Your task to perform on an android device: open a bookmark in the chrome app Image 0: 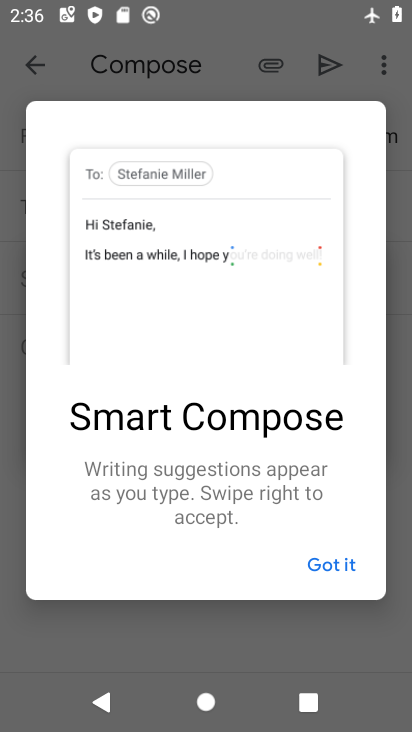
Step 0: press home button
Your task to perform on an android device: open a bookmark in the chrome app Image 1: 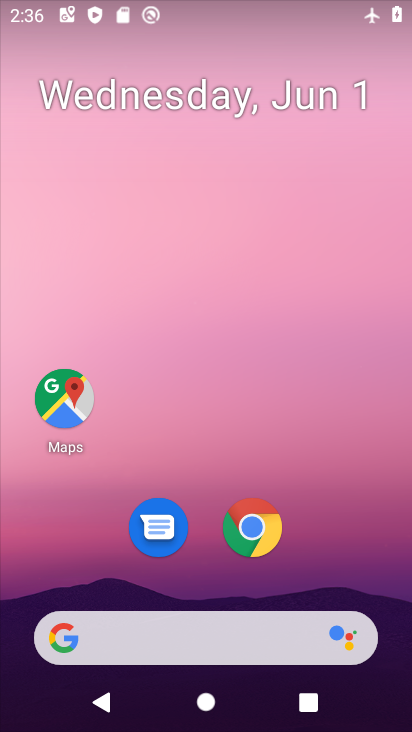
Step 1: click (256, 527)
Your task to perform on an android device: open a bookmark in the chrome app Image 2: 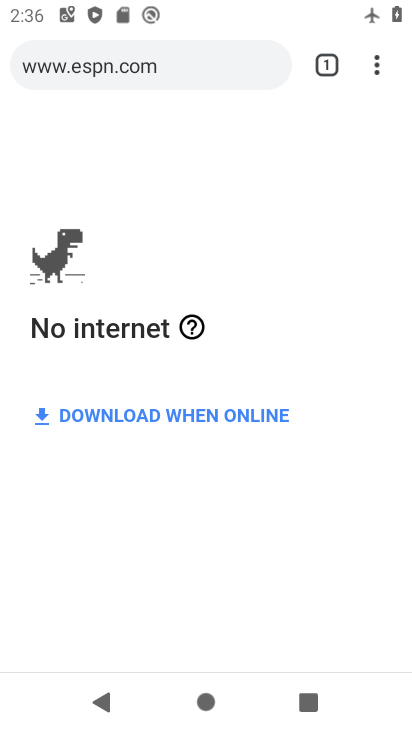
Step 2: click (377, 66)
Your task to perform on an android device: open a bookmark in the chrome app Image 3: 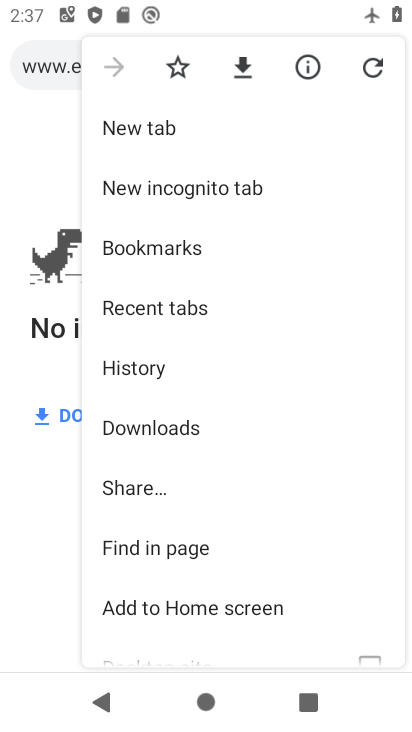
Step 3: click (180, 251)
Your task to perform on an android device: open a bookmark in the chrome app Image 4: 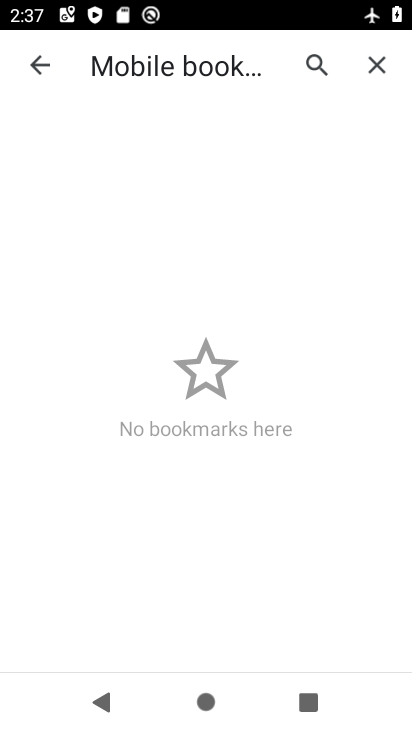
Step 4: task complete